Your task to perform on an android device: turn on notifications settings in the gmail app Image 0: 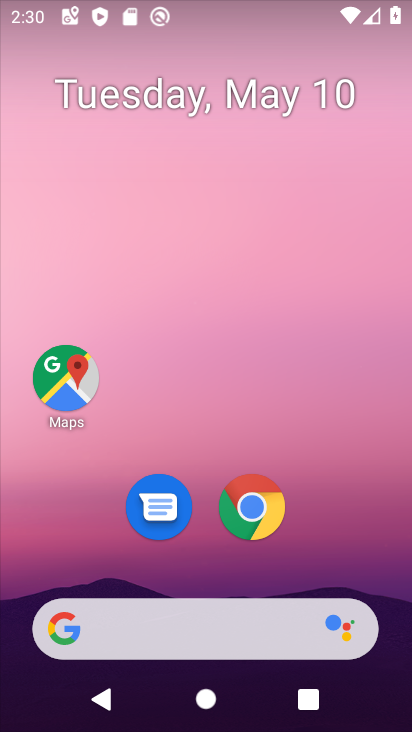
Step 0: drag from (229, 728) to (232, 194)
Your task to perform on an android device: turn on notifications settings in the gmail app Image 1: 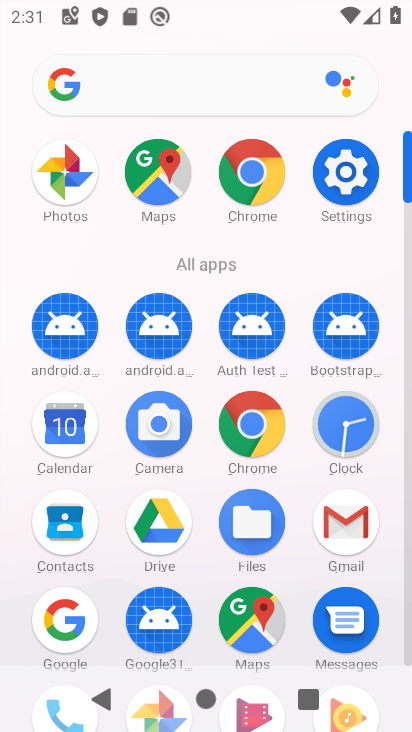
Step 1: click (356, 518)
Your task to perform on an android device: turn on notifications settings in the gmail app Image 2: 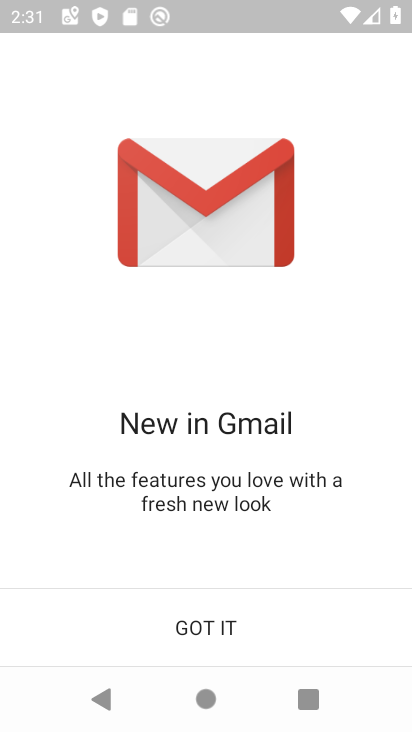
Step 2: click (208, 622)
Your task to perform on an android device: turn on notifications settings in the gmail app Image 3: 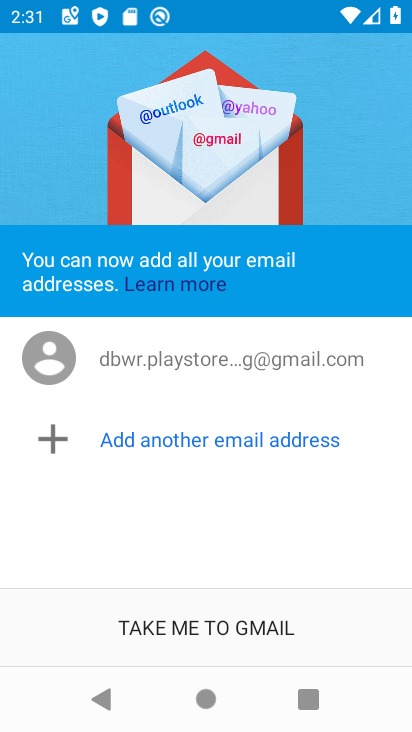
Step 3: click (202, 613)
Your task to perform on an android device: turn on notifications settings in the gmail app Image 4: 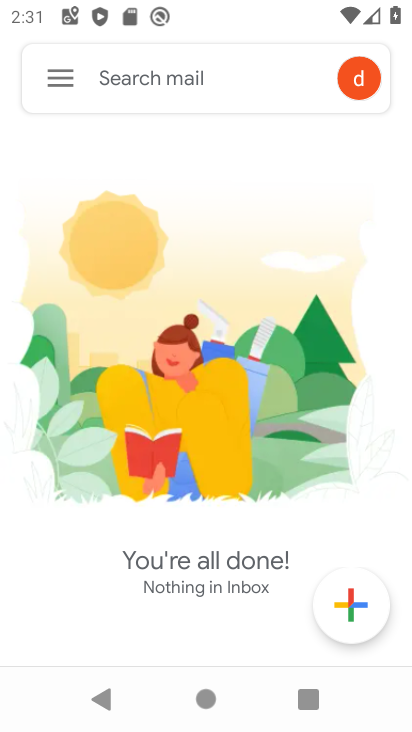
Step 4: click (56, 83)
Your task to perform on an android device: turn on notifications settings in the gmail app Image 5: 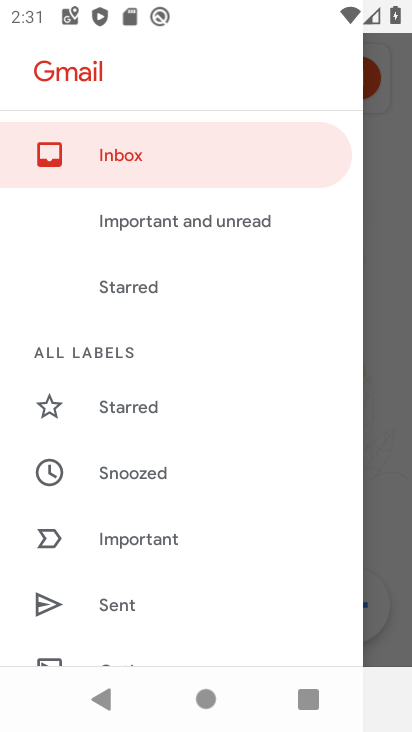
Step 5: drag from (163, 610) to (151, 312)
Your task to perform on an android device: turn on notifications settings in the gmail app Image 6: 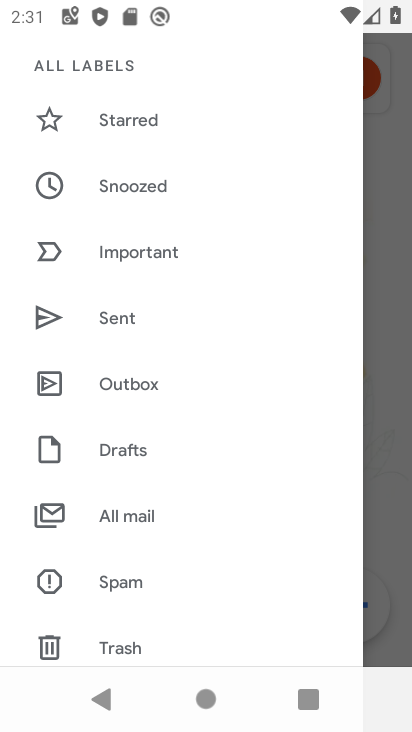
Step 6: drag from (151, 627) to (149, 279)
Your task to perform on an android device: turn on notifications settings in the gmail app Image 7: 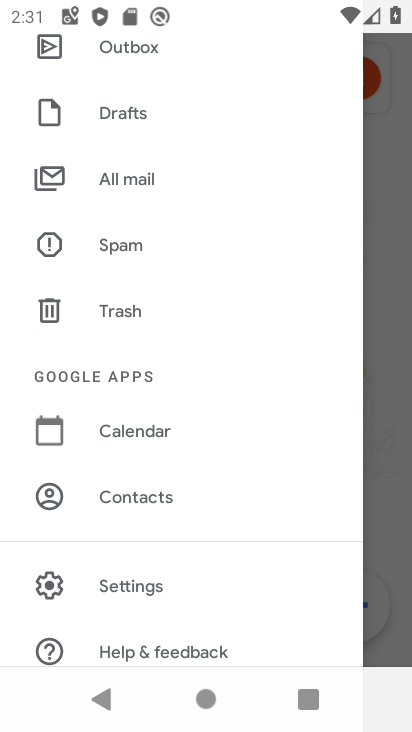
Step 7: drag from (129, 589) to (127, 310)
Your task to perform on an android device: turn on notifications settings in the gmail app Image 8: 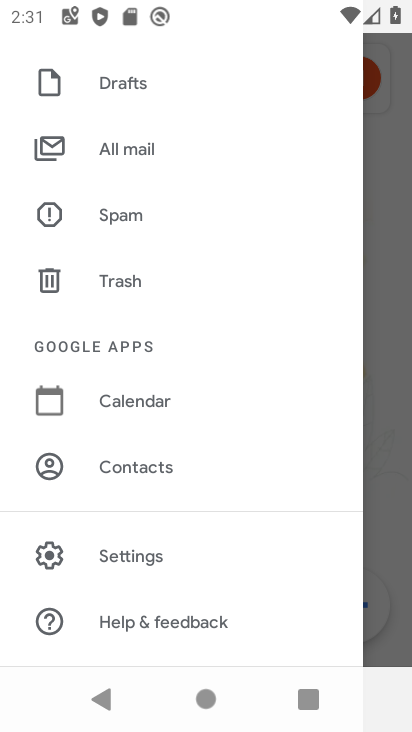
Step 8: click (146, 557)
Your task to perform on an android device: turn on notifications settings in the gmail app Image 9: 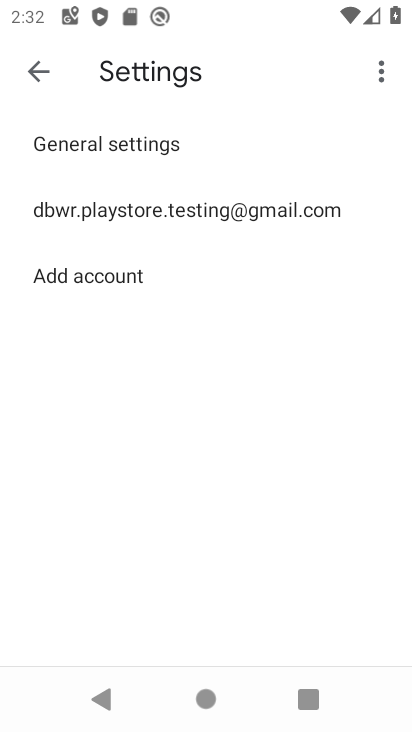
Step 9: click (101, 207)
Your task to perform on an android device: turn on notifications settings in the gmail app Image 10: 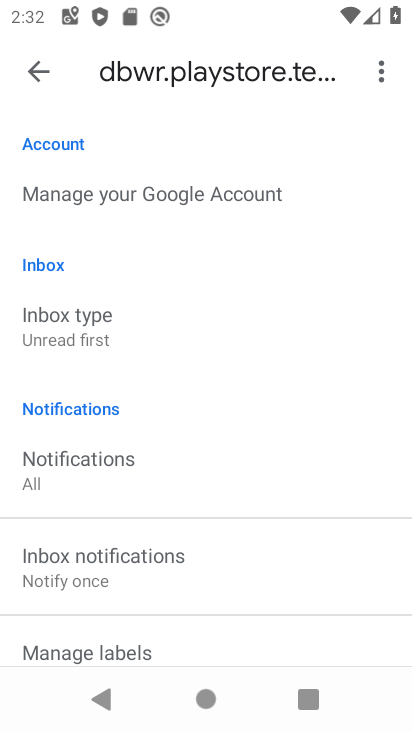
Step 10: click (78, 462)
Your task to perform on an android device: turn on notifications settings in the gmail app Image 11: 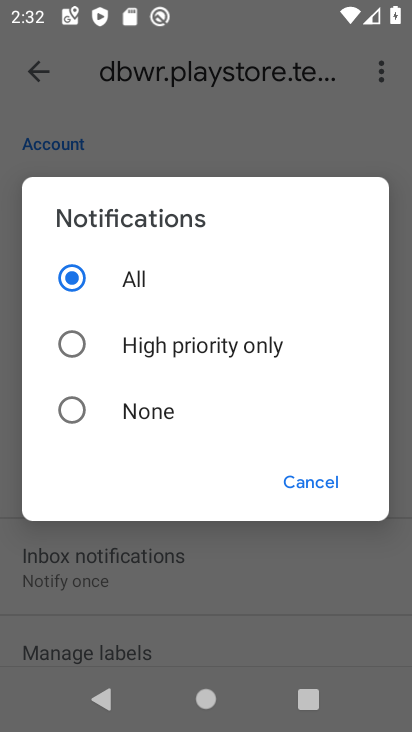
Step 11: click (168, 283)
Your task to perform on an android device: turn on notifications settings in the gmail app Image 12: 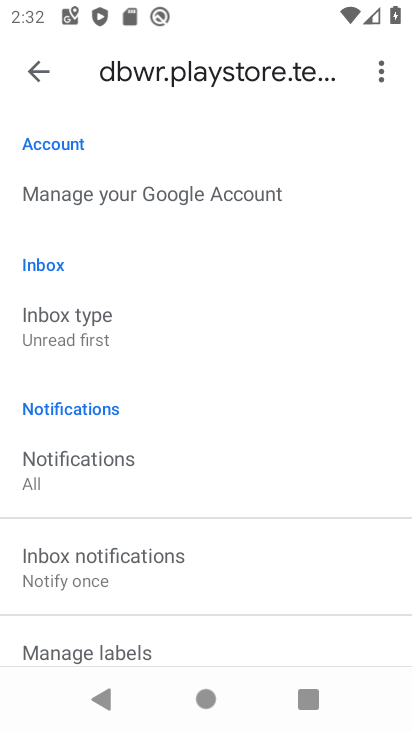
Step 12: task complete